Your task to perform on an android device: Open Reddit.com Image 0: 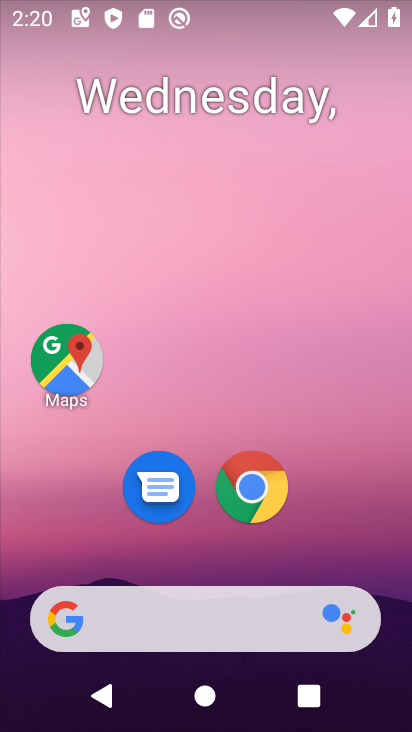
Step 0: click (243, 491)
Your task to perform on an android device: Open Reddit.com Image 1: 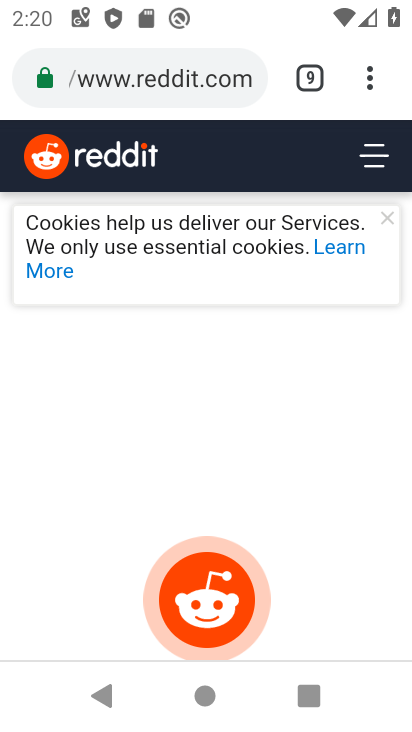
Step 1: task complete